Your task to perform on an android device: see creations saved in the google photos Image 0: 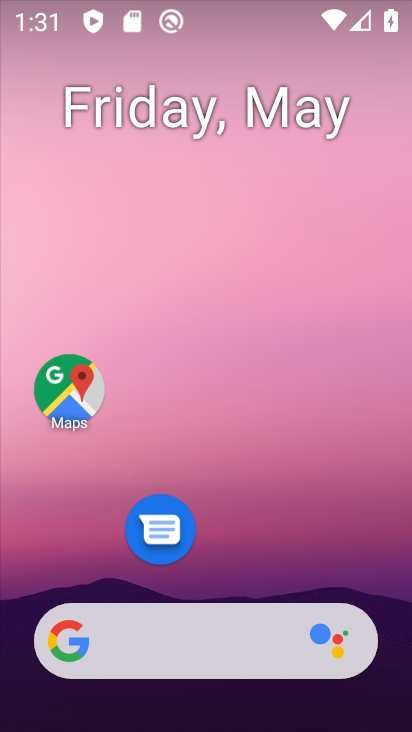
Step 0: drag from (189, 549) to (193, 194)
Your task to perform on an android device: see creations saved in the google photos Image 1: 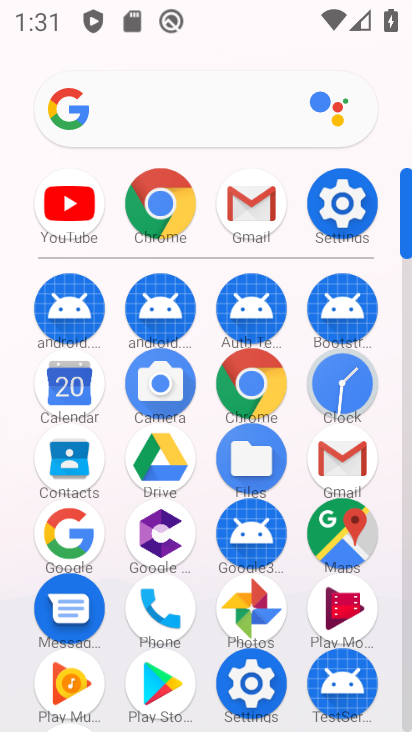
Step 1: click (247, 623)
Your task to perform on an android device: see creations saved in the google photos Image 2: 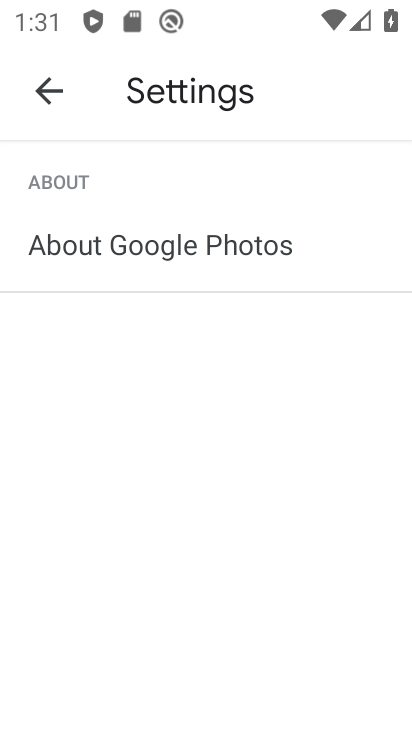
Step 2: click (45, 96)
Your task to perform on an android device: see creations saved in the google photos Image 3: 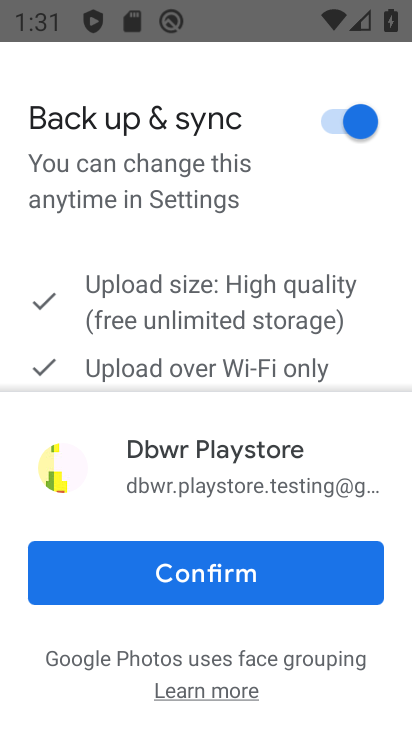
Step 3: click (215, 576)
Your task to perform on an android device: see creations saved in the google photos Image 4: 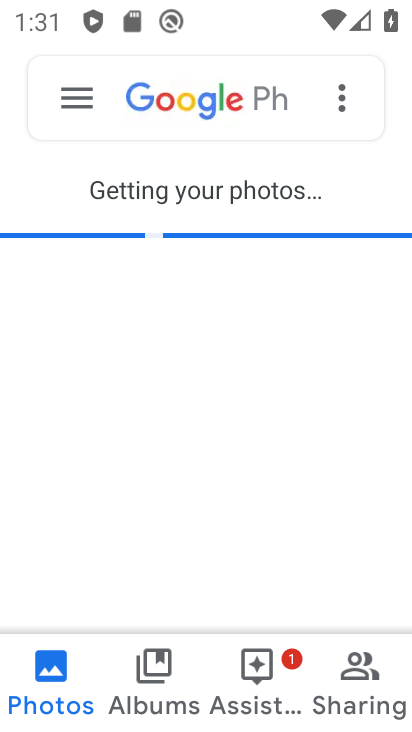
Step 4: click (180, 106)
Your task to perform on an android device: see creations saved in the google photos Image 5: 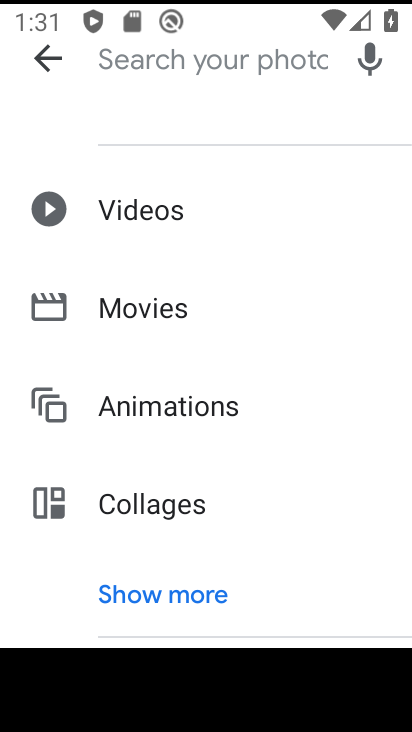
Step 5: drag from (173, 439) to (183, 102)
Your task to perform on an android device: see creations saved in the google photos Image 6: 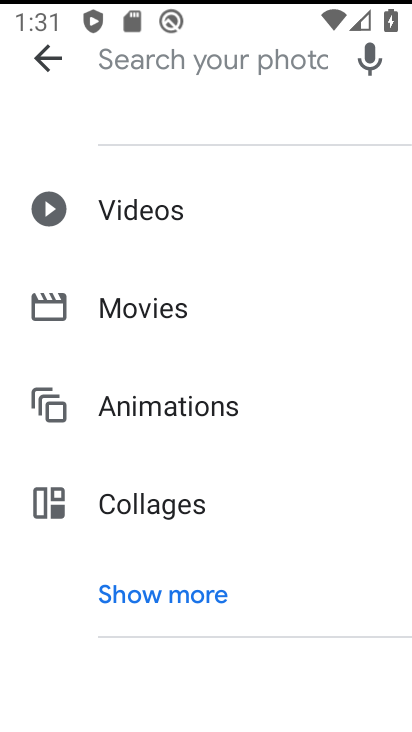
Step 6: click (160, 603)
Your task to perform on an android device: see creations saved in the google photos Image 7: 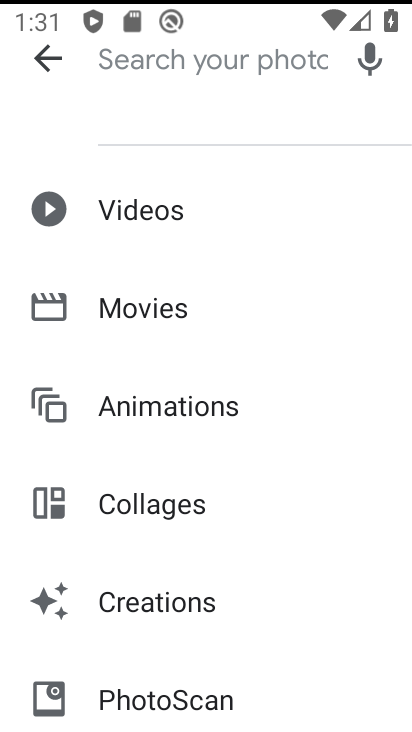
Step 7: drag from (164, 598) to (220, 159)
Your task to perform on an android device: see creations saved in the google photos Image 8: 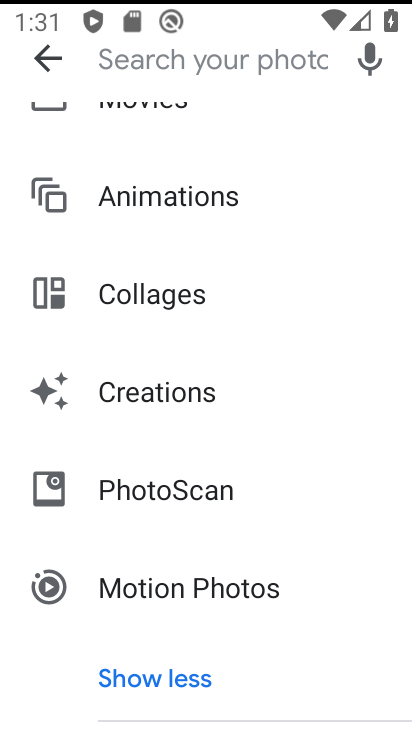
Step 8: click (164, 396)
Your task to perform on an android device: see creations saved in the google photos Image 9: 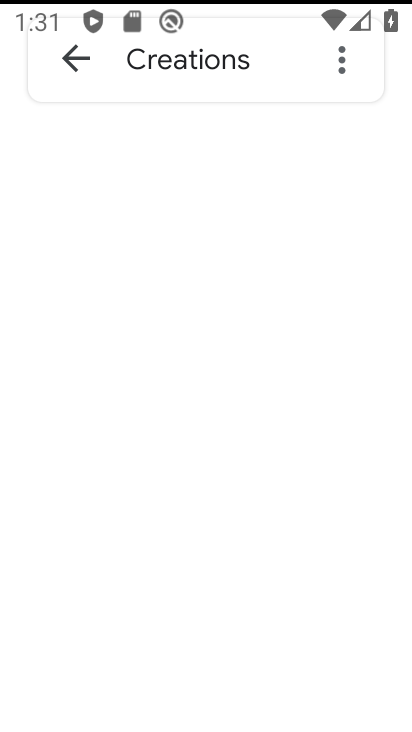
Step 9: drag from (202, 506) to (234, 268)
Your task to perform on an android device: see creations saved in the google photos Image 10: 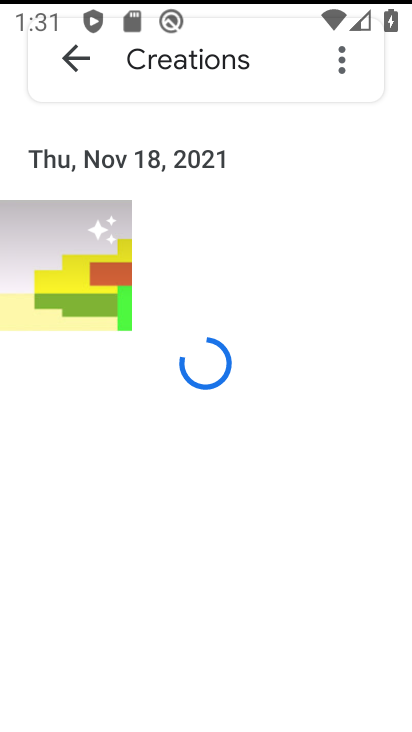
Step 10: click (59, 222)
Your task to perform on an android device: see creations saved in the google photos Image 11: 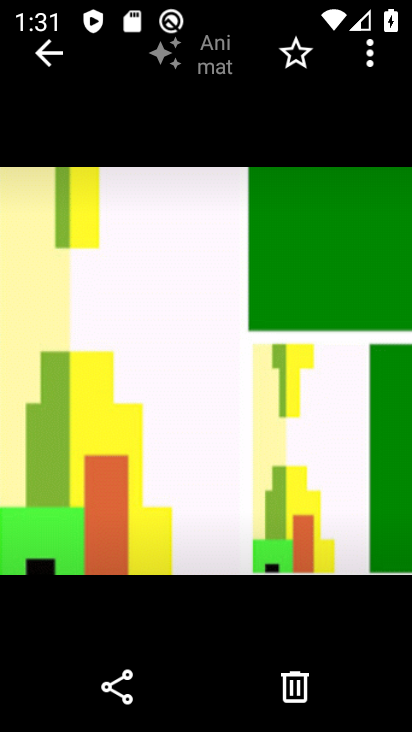
Step 11: task complete